Your task to perform on an android device: turn off improve location accuracy Image 0: 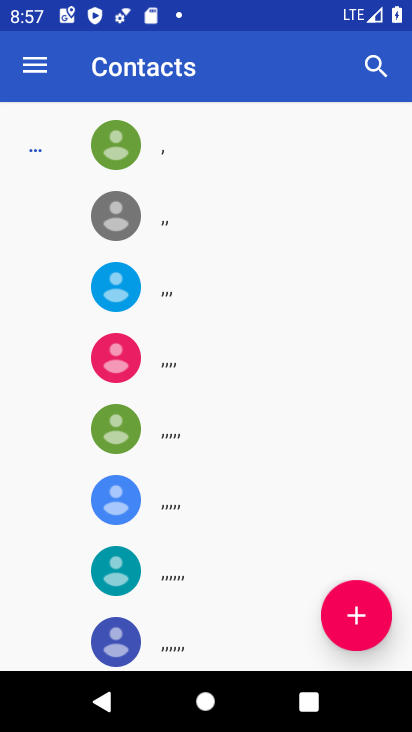
Step 0: press home button
Your task to perform on an android device: turn off improve location accuracy Image 1: 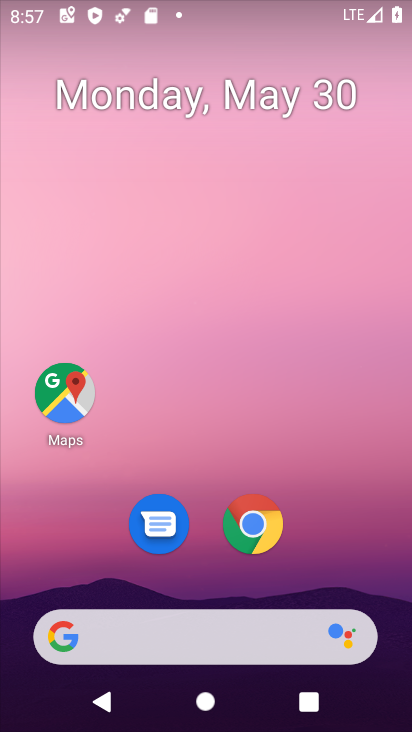
Step 1: drag from (344, 550) to (339, 26)
Your task to perform on an android device: turn off improve location accuracy Image 2: 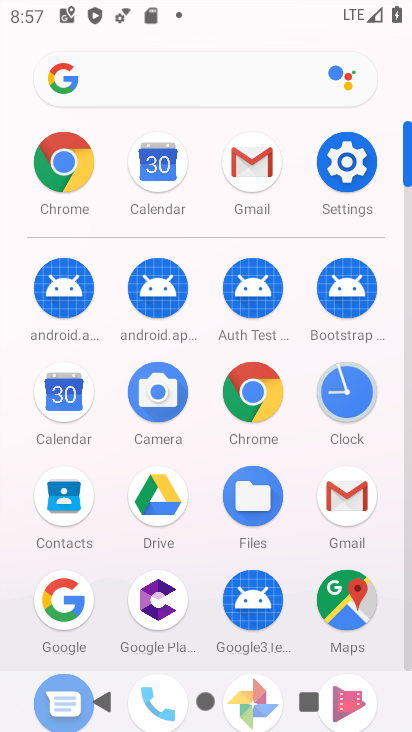
Step 2: click (328, 149)
Your task to perform on an android device: turn off improve location accuracy Image 3: 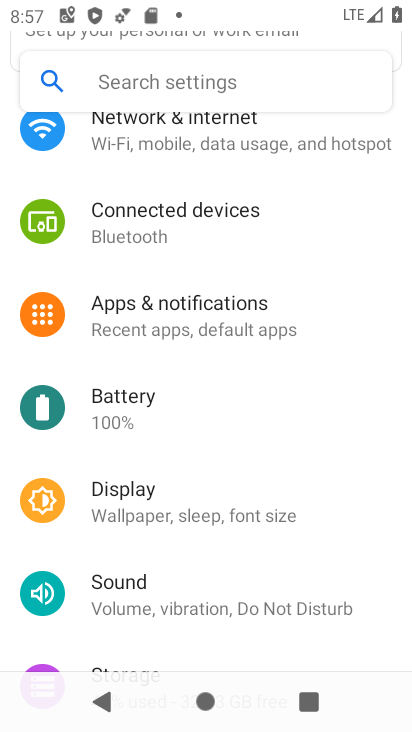
Step 3: drag from (239, 566) to (251, 188)
Your task to perform on an android device: turn off improve location accuracy Image 4: 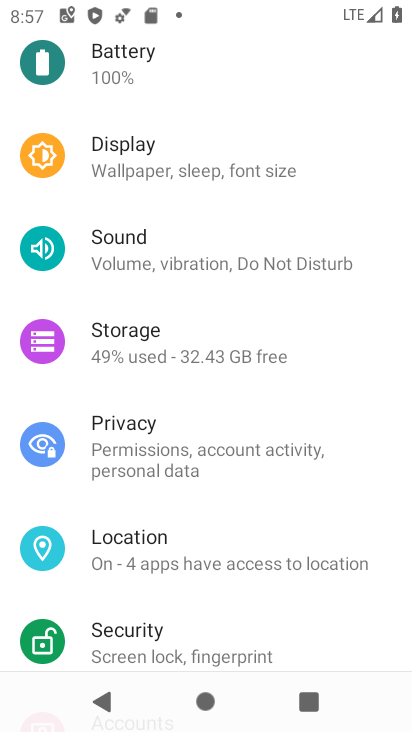
Step 4: click (234, 555)
Your task to perform on an android device: turn off improve location accuracy Image 5: 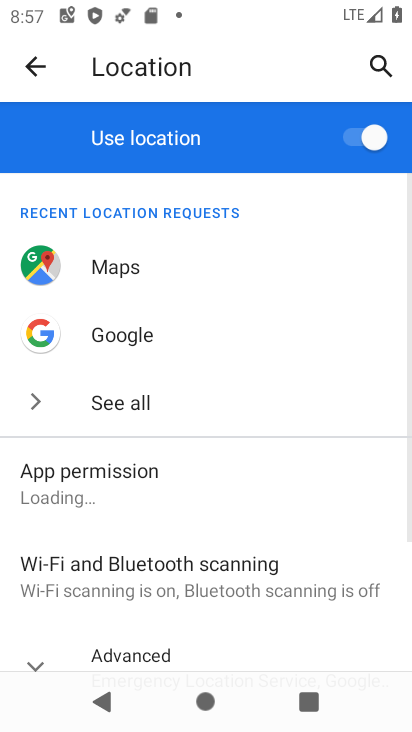
Step 5: drag from (251, 508) to (245, 187)
Your task to perform on an android device: turn off improve location accuracy Image 6: 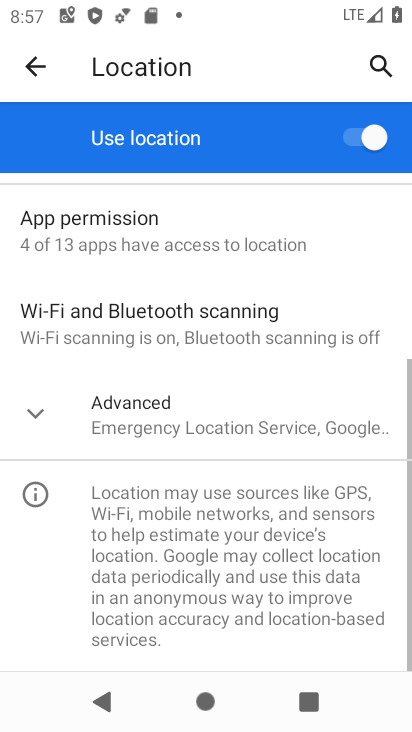
Step 6: click (39, 406)
Your task to perform on an android device: turn off improve location accuracy Image 7: 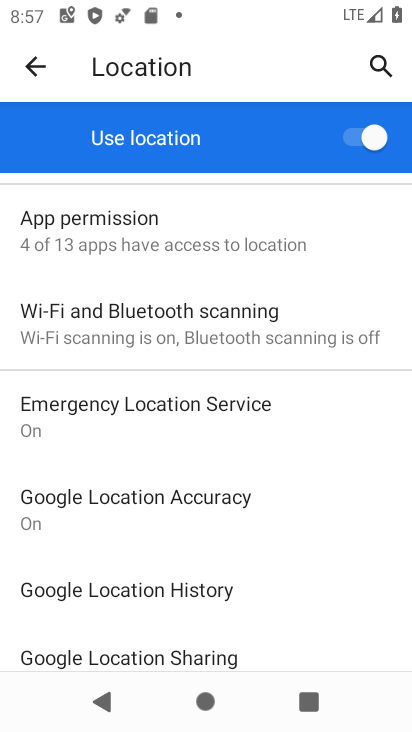
Step 7: click (109, 508)
Your task to perform on an android device: turn off improve location accuracy Image 8: 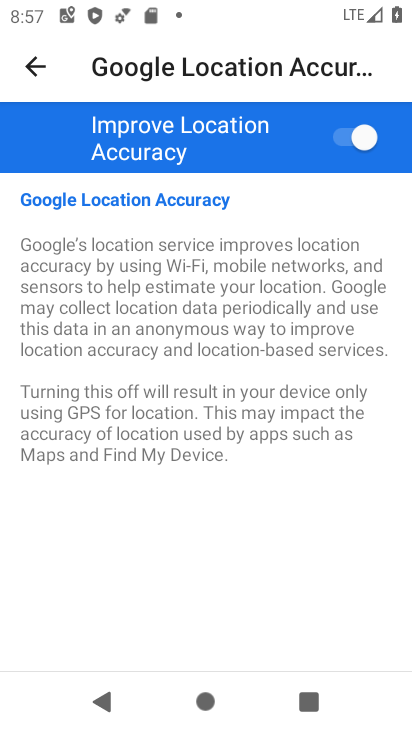
Step 8: click (336, 137)
Your task to perform on an android device: turn off improve location accuracy Image 9: 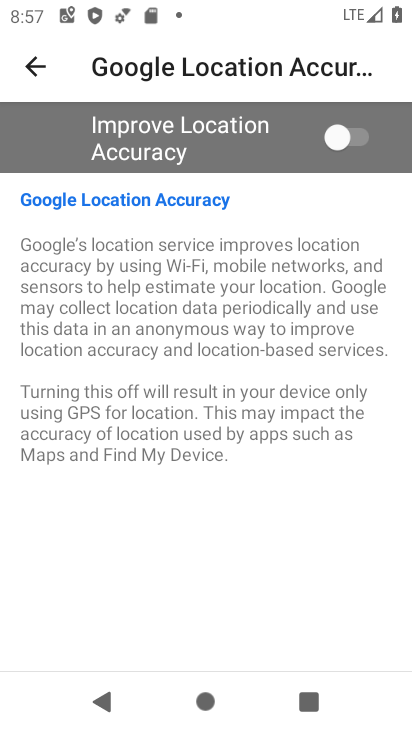
Step 9: task complete